Your task to perform on an android device: open wifi settings Image 0: 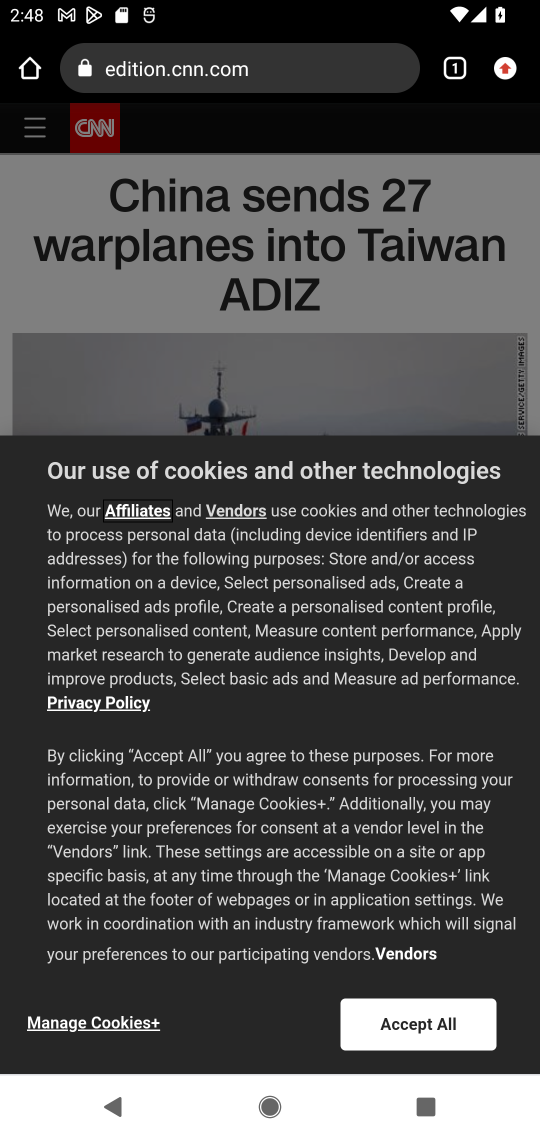
Step 0: press home button
Your task to perform on an android device: open wifi settings Image 1: 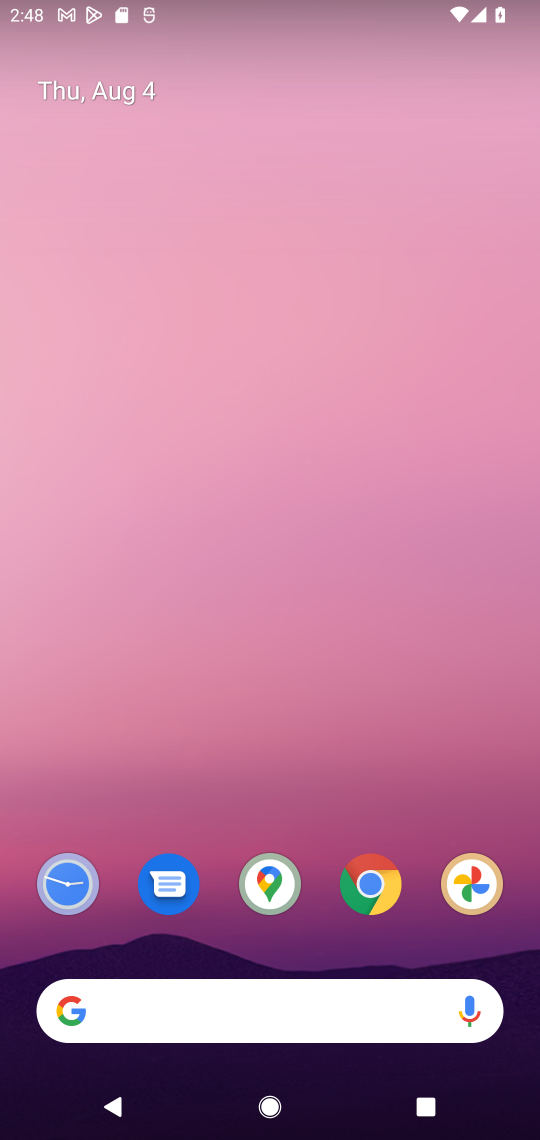
Step 1: drag from (273, 961) to (245, 234)
Your task to perform on an android device: open wifi settings Image 2: 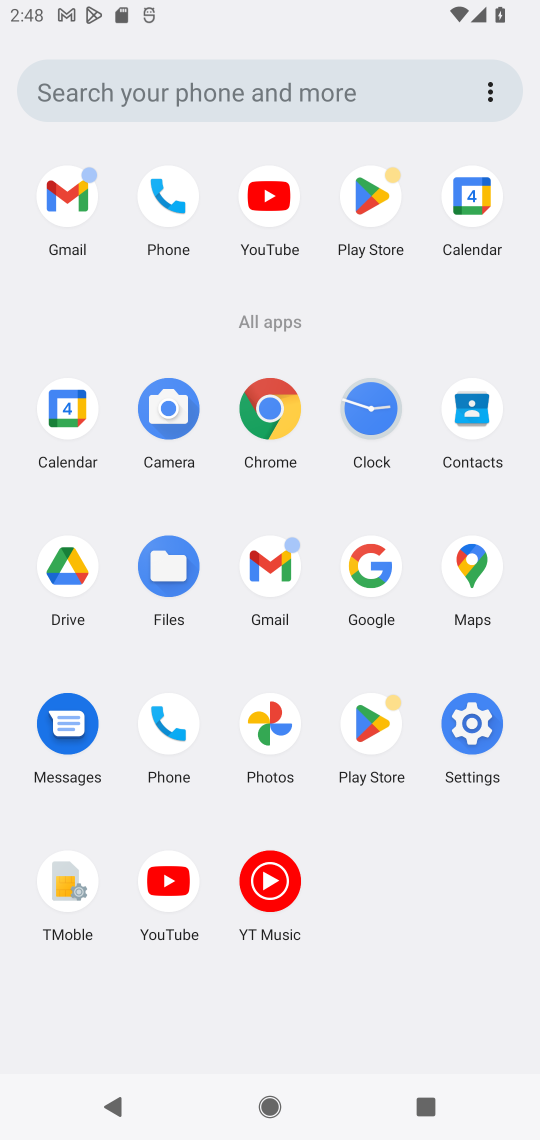
Step 2: click (496, 753)
Your task to perform on an android device: open wifi settings Image 3: 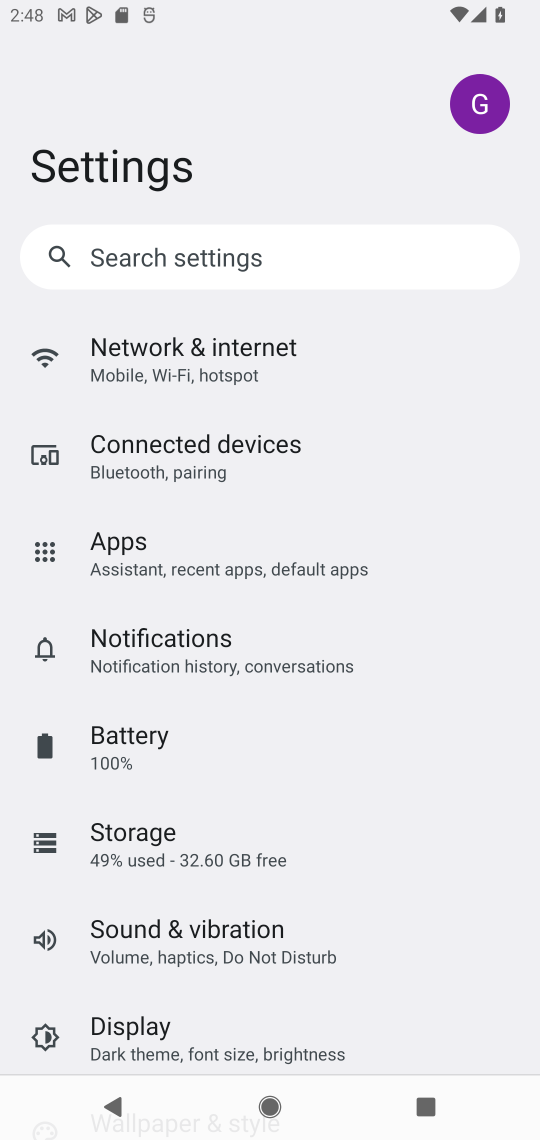
Step 3: click (213, 373)
Your task to perform on an android device: open wifi settings Image 4: 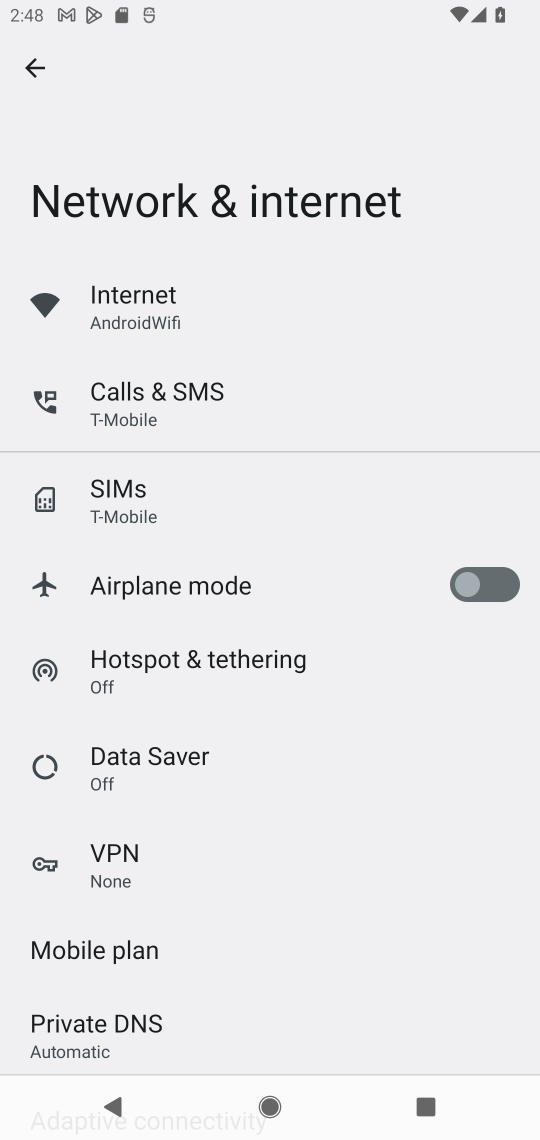
Step 4: task complete